Your task to perform on an android device: Open settings Image 0: 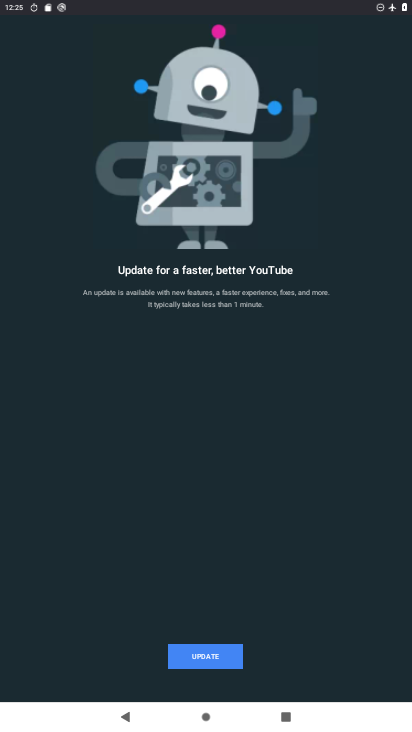
Step 0: press home button
Your task to perform on an android device: Open settings Image 1: 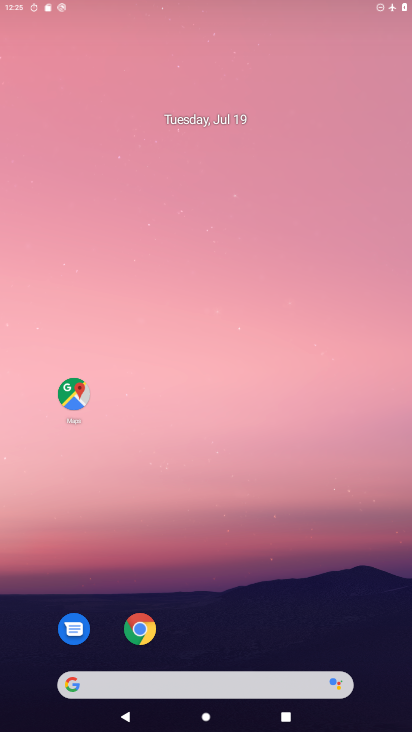
Step 1: drag from (297, 597) to (254, 119)
Your task to perform on an android device: Open settings Image 2: 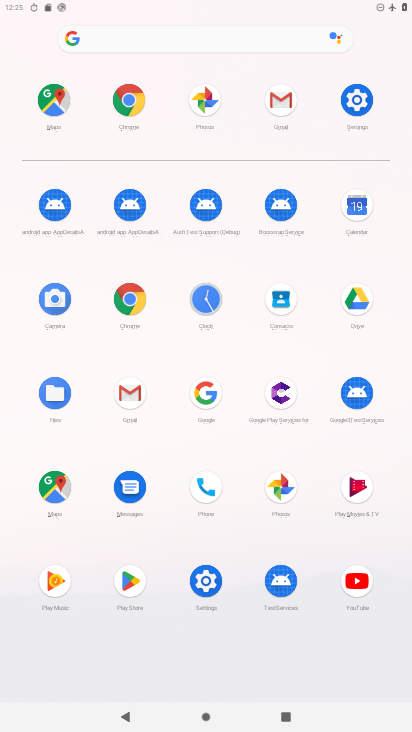
Step 2: click (363, 107)
Your task to perform on an android device: Open settings Image 3: 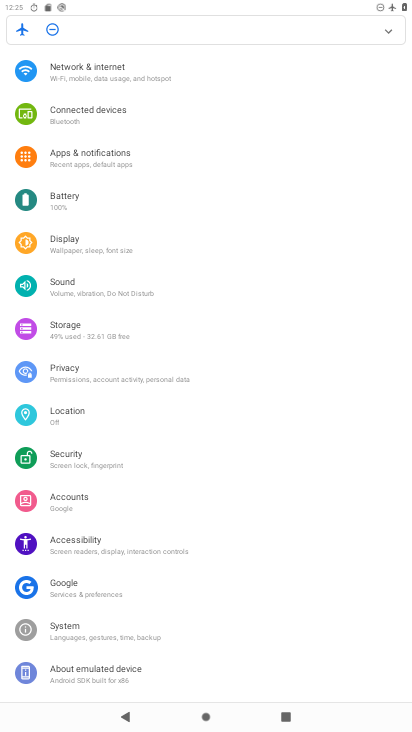
Step 3: task complete